Your task to perform on an android device: Check the weather Image 0: 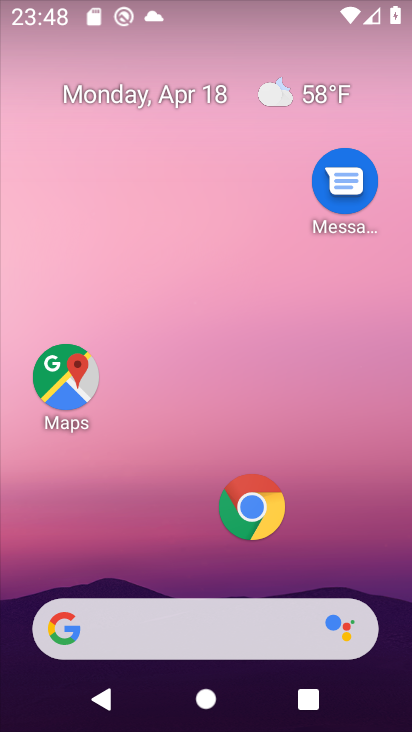
Step 0: drag from (166, 480) to (138, 667)
Your task to perform on an android device: Check the weather Image 1: 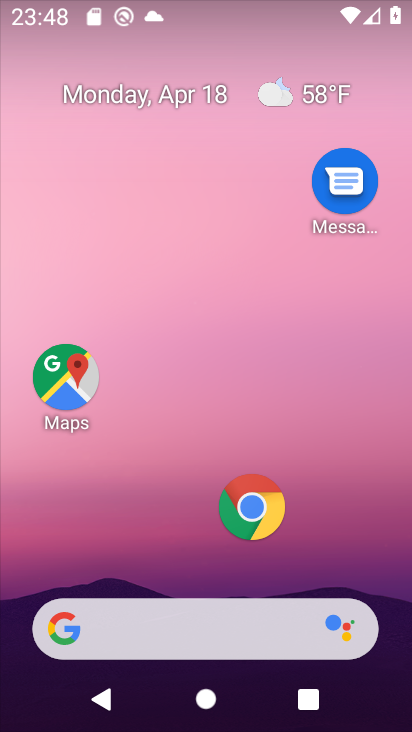
Step 1: click (302, 87)
Your task to perform on an android device: Check the weather Image 2: 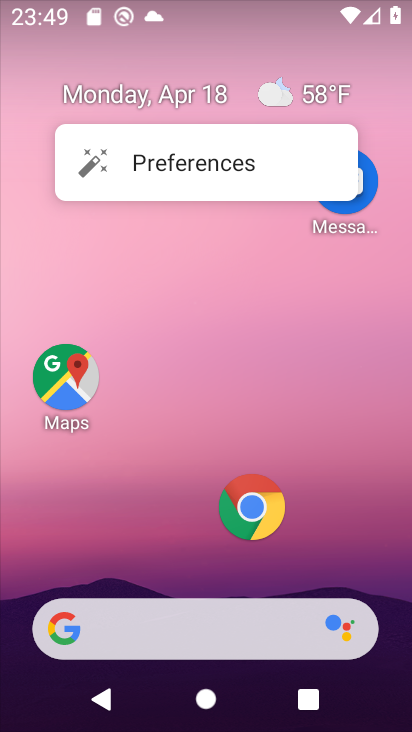
Step 2: click (314, 94)
Your task to perform on an android device: Check the weather Image 3: 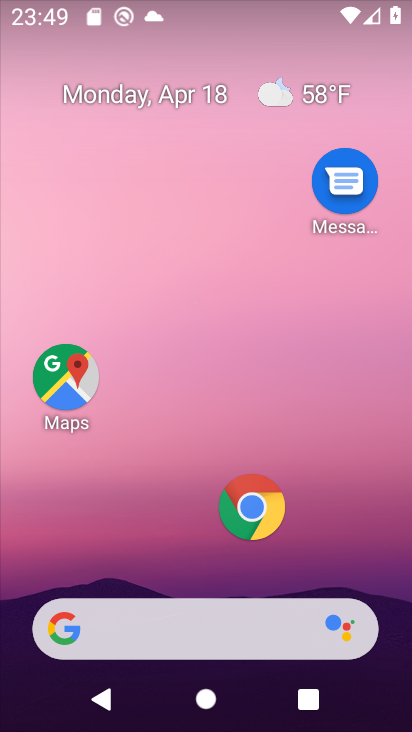
Step 3: click (324, 93)
Your task to perform on an android device: Check the weather Image 4: 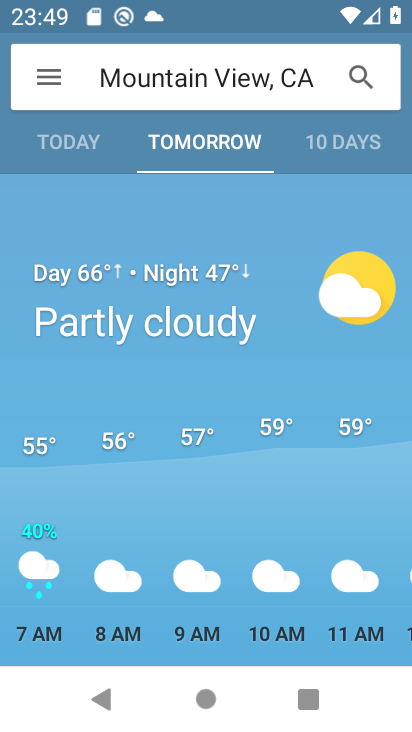
Step 4: task complete